Your task to perform on an android device: turn on notifications settings in the gmail app Image 0: 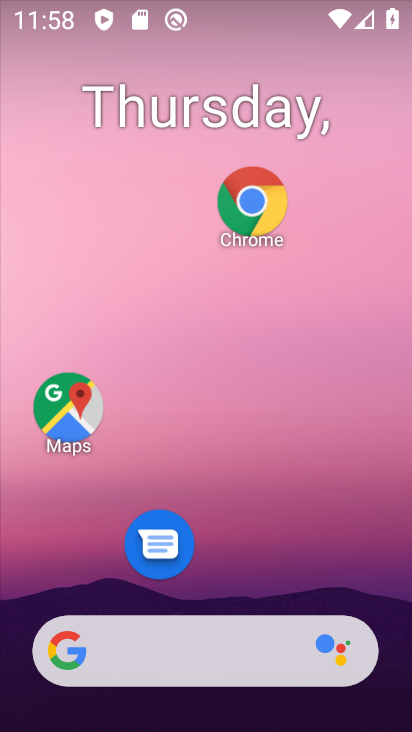
Step 0: drag from (220, 595) to (159, 25)
Your task to perform on an android device: turn on notifications settings in the gmail app Image 1: 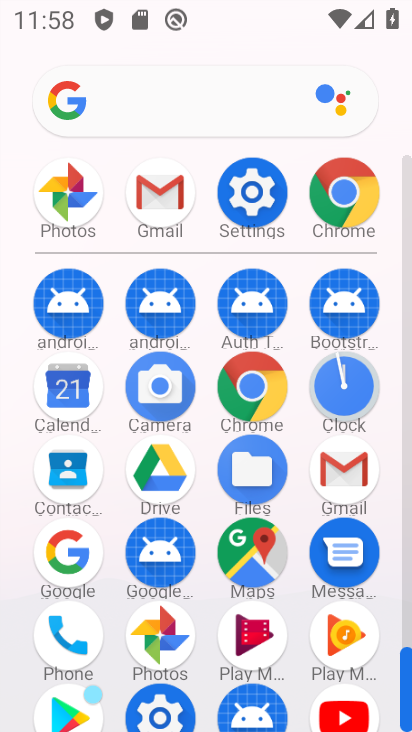
Step 1: click (338, 480)
Your task to perform on an android device: turn on notifications settings in the gmail app Image 2: 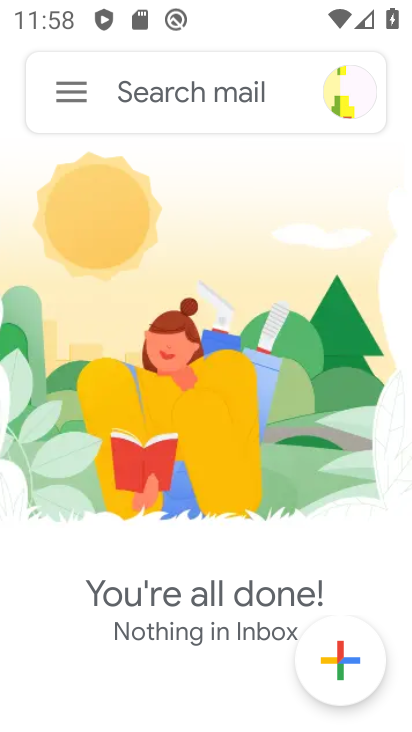
Step 2: click (64, 98)
Your task to perform on an android device: turn on notifications settings in the gmail app Image 3: 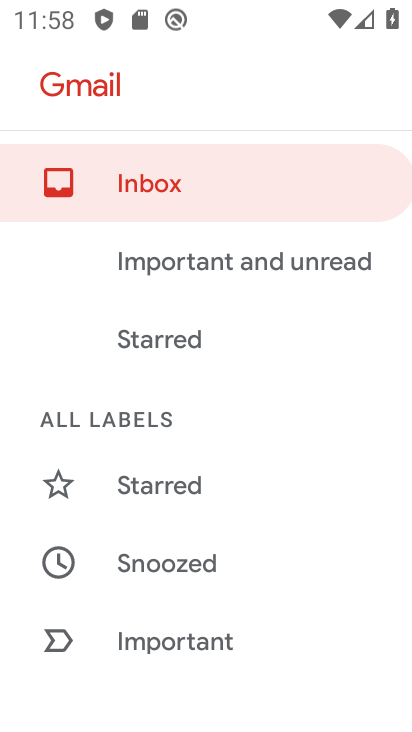
Step 3: drag from (126, 613) to (110, 91)
Your task to perform on an android device: turn on notifications settings in the gmail app Image 4: 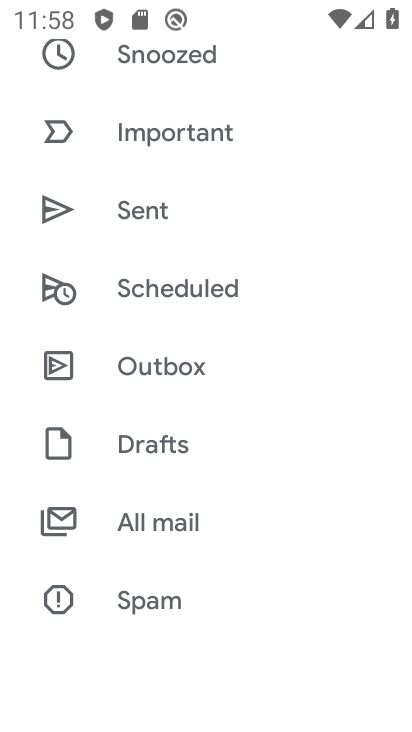
Step 4: drag from (219, 583) to (226, 99)
Your task to perform on an android device: turn on notifications settings in the gmail app Image 5: 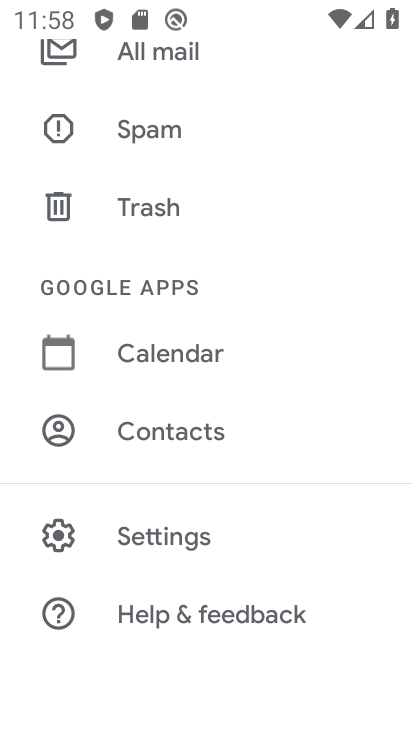
Step 5: click (172, 538)
Your task to perform on an android device: turn on notifications settings in the gmail app Image 6: 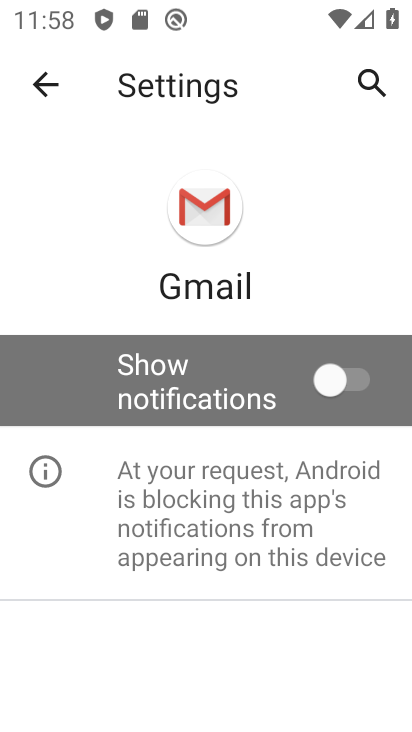
Step 6: click (327, 395)
Your task to perform on an android device: turn on notifications settings in the gmail app Image 7: 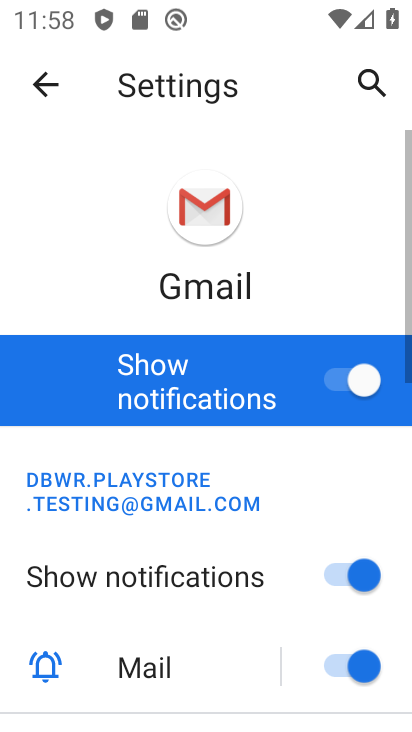
Step 7: task complete